Your task to perform on an android device: turn on priority inbox in the gmail app Image 0: 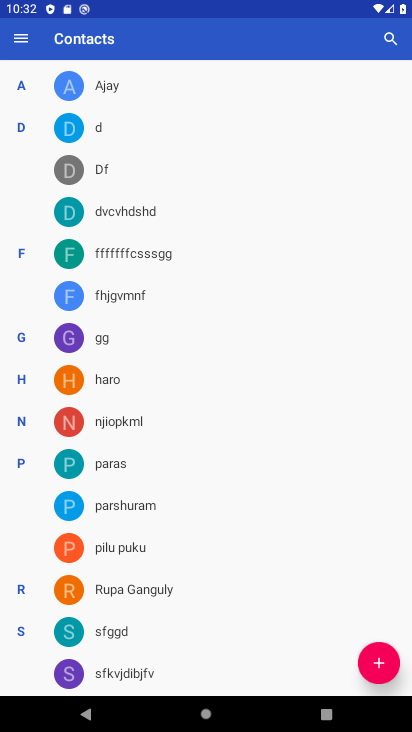
Step 0: press back button
Your task to perform on an android device: turn on priority inbox in the gmail app Image 1: 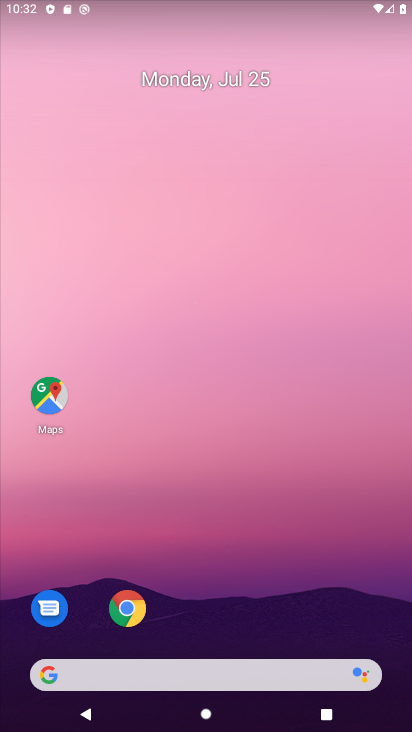
Step 1: drag from (234, 620) to (136, 121)
Your task to perform on an android device: turn on priority inbox in the gmail app Image 2: 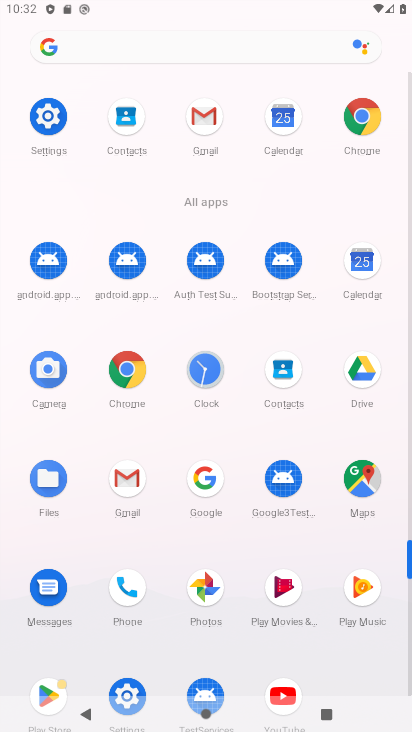
Step 2: click (132, 490)
Your task to perform on an android device: turn on priority inbox in the gmail app Image 3: 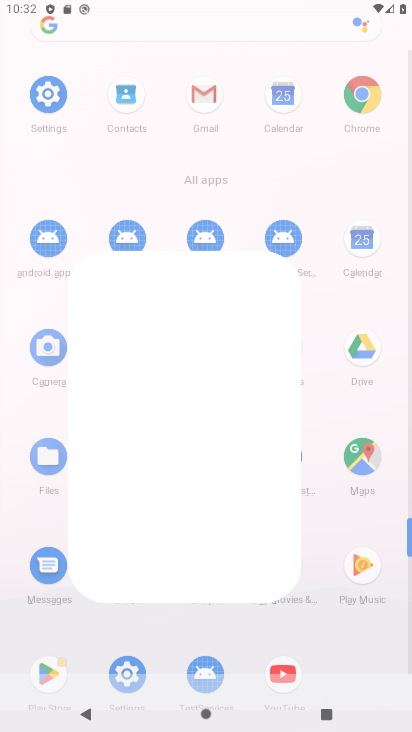
Step 3: click (132, 489)
Your task to perform on an android device: turn on priority inbox in the gmail app Image 4: 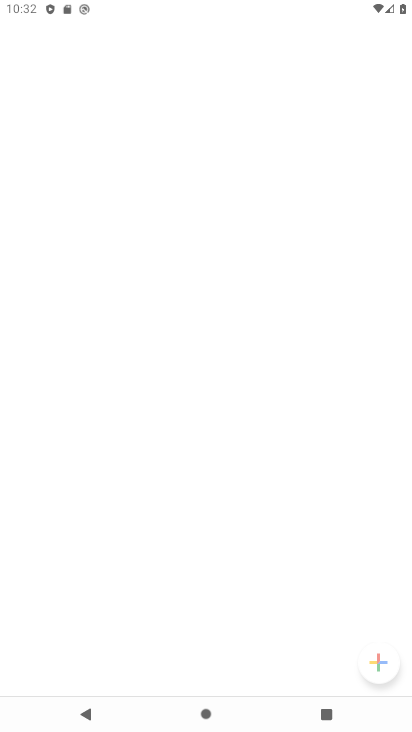
Step 4: click (130, 486)
Your task to perform on an android device: turn on priority inbox in the gmail app Image 5: 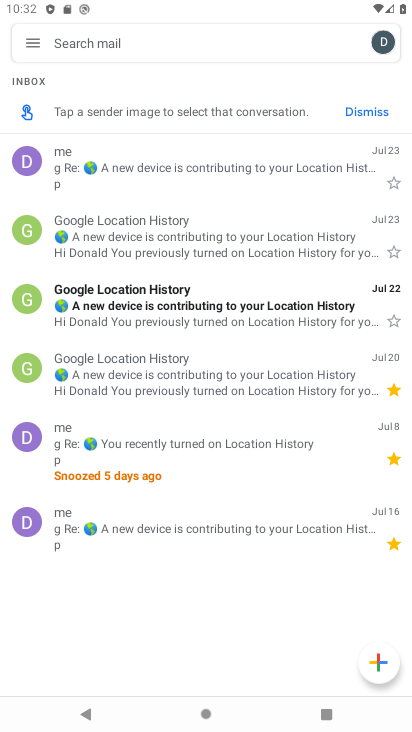
Step 5: click (37, 47)
Your task to perform on an android device: turn on priority inbox in the gmail app Image 6: 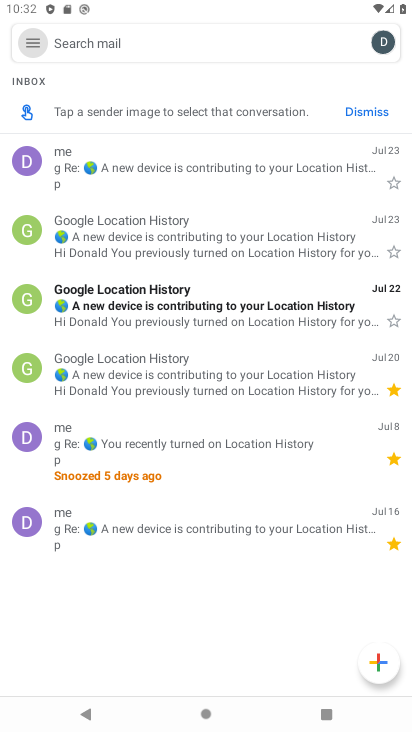
Step 6: click (36, 46)
Your task to perform on an android device: turn on priority inbox in the gmail app Image 7: 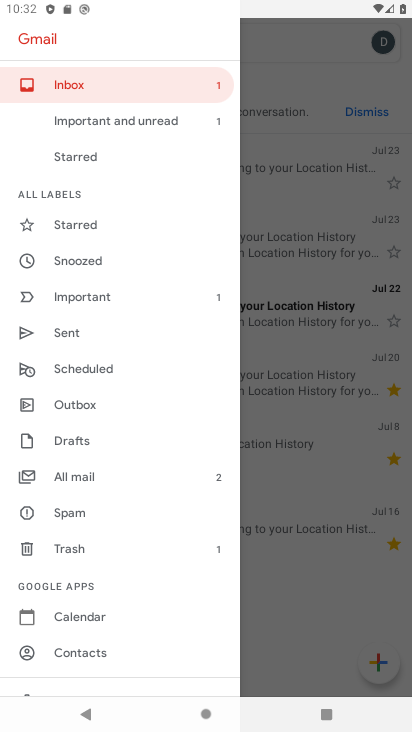
Step 7: drag from (95, 511) to (95, 238)
Your task to perform on an android device: turn on priority inbox in the gmail app Image 8: 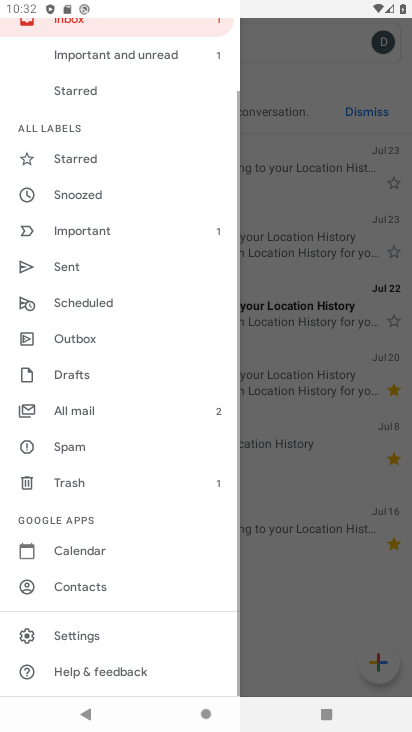
Step 8: drag from (120, 504) to (81, 192)
Your task to perform on an android device: turn on priority inbox in the gmail app Image 9: 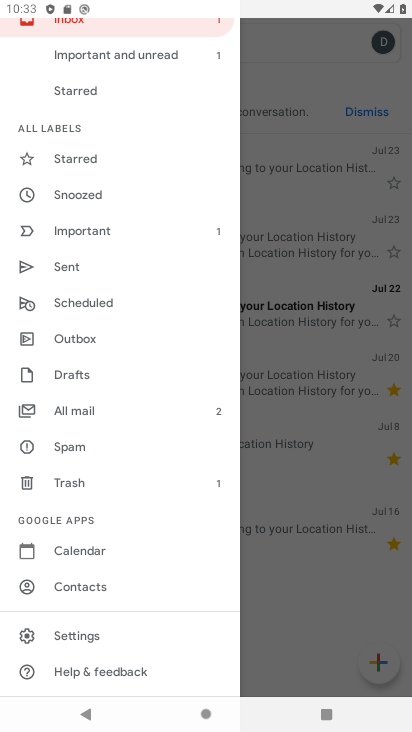
Step 9: click (77, 626)
Your task to perform on an android device: turn on priority inbox in the gmail app Image 10: 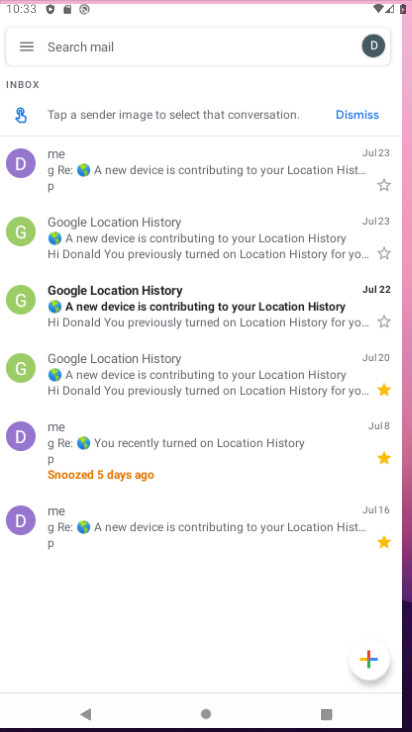
Step 10: click (78, 625)
Your task to perform on an android device: turn on priority inbox in the gmail app Image 11: 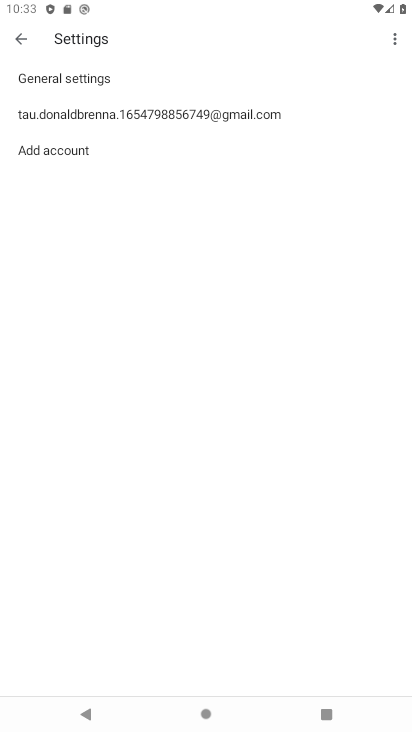
Step 11: click (96, 110)
Your task to perform on an android device: turn on priority inbox in the gmail app Image 12: 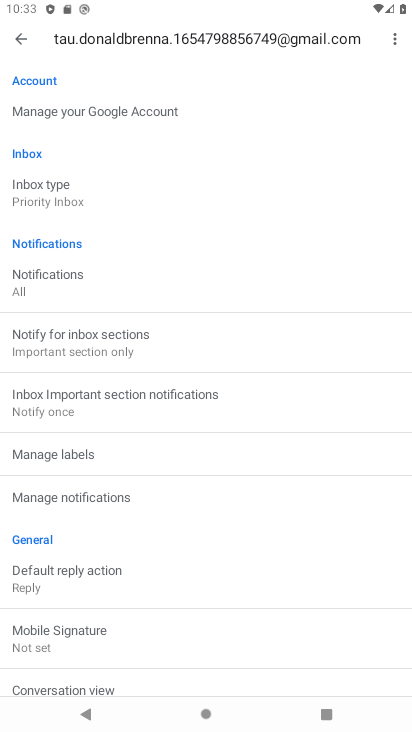
Step 12: click (40, 192)
Your task to perform on an android device: turn on priority inbox in the gmail app Image 13: 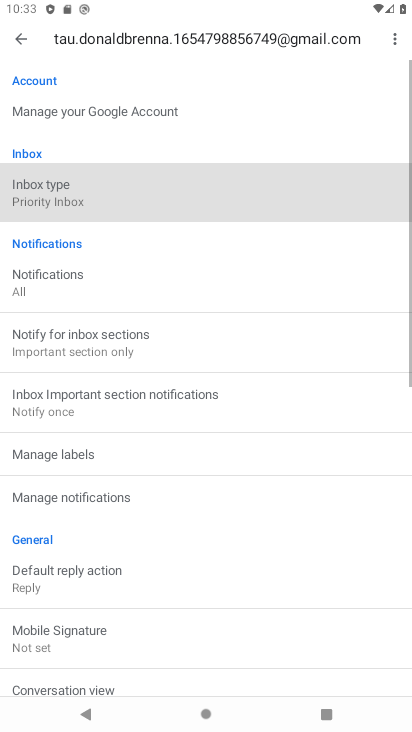
Step 13: click (37, 189)
Your task to perform on an android device: turn on priority inbox in the gmail app Image 14: 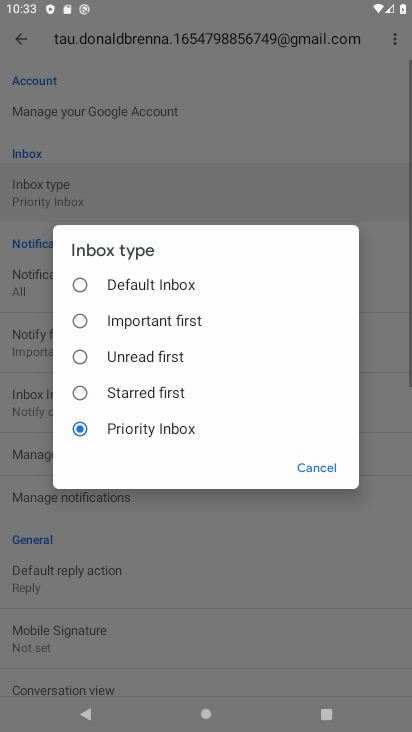
Step 14: click (36, 189)
Your task to perform on an android device: turn on priority inbox in the gmail app Image 15: 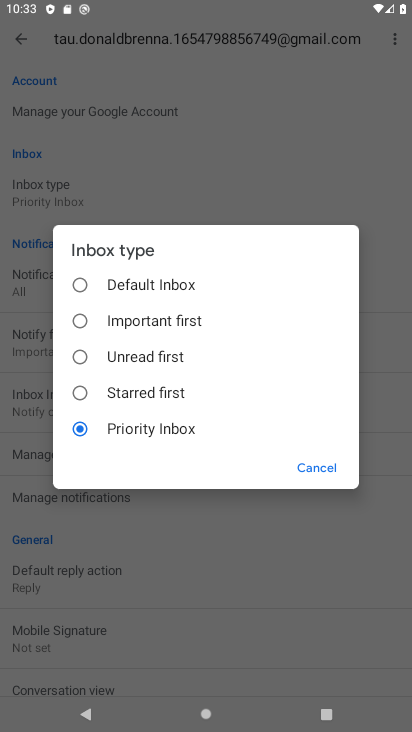
Step 15: click (313, 473)
Your task to perform on an android device: turn on priority inbox in the gmail app Image 16: 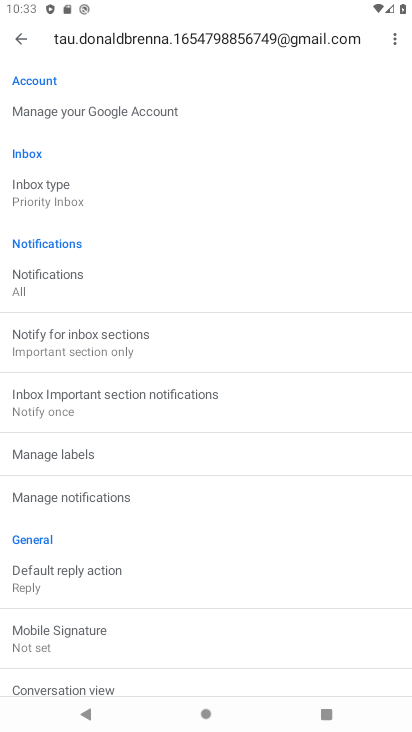
Step 16: task complete